Your task to perform on an android device: see sites visited before in the chrome app Image 0: 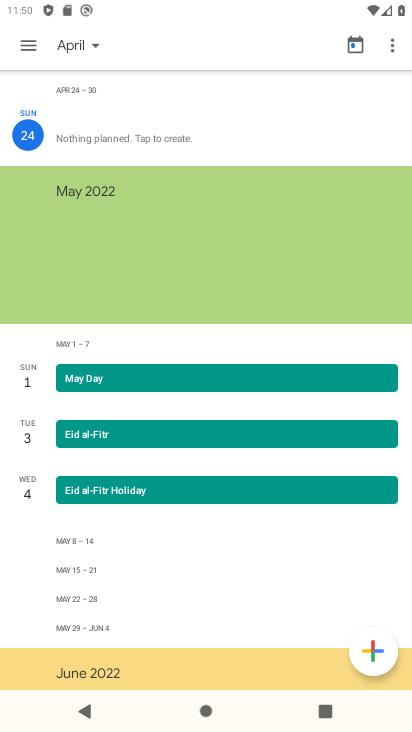
Step 0: press home button
Your task to perform on an android device: see sites visited before in the chrome app Image 1: 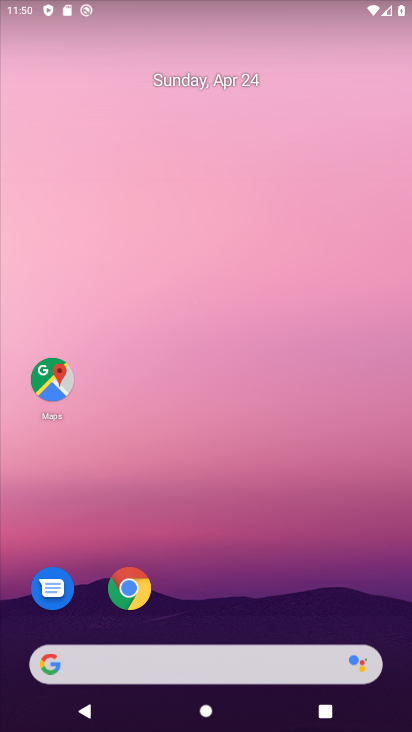
Step 1: click (133, 604)
Your task to perform on an android device: see sites visited before in the chrome app Image 2: 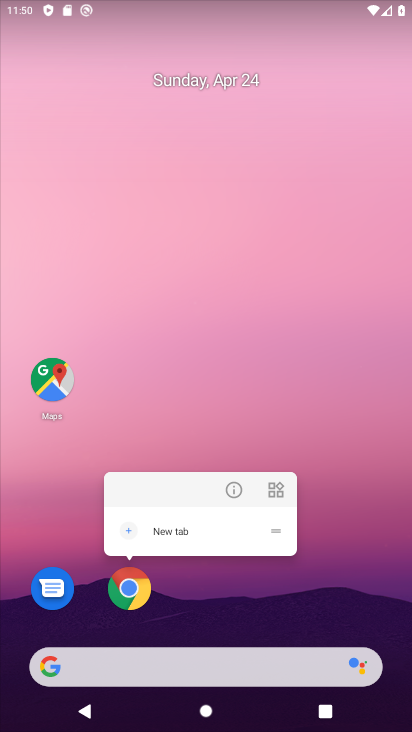
Step 2: click (138, 598)
Your task to perform on an android device: see sites visited before in the chrome app Image 3: 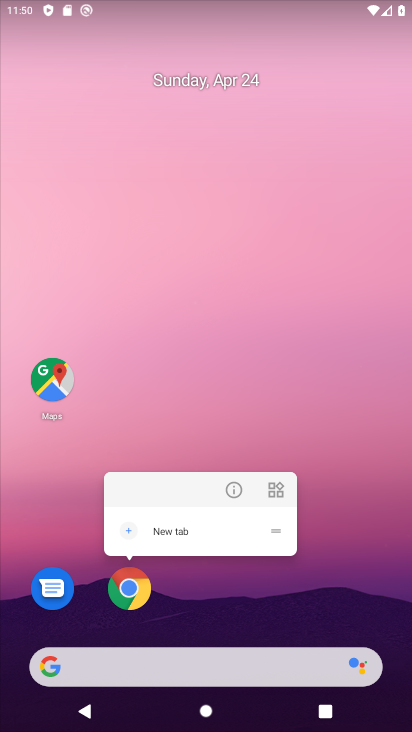
Step 3: click (137, 599)
Your task to perform on an android device: see sites visited before in the chrome app Image 4: 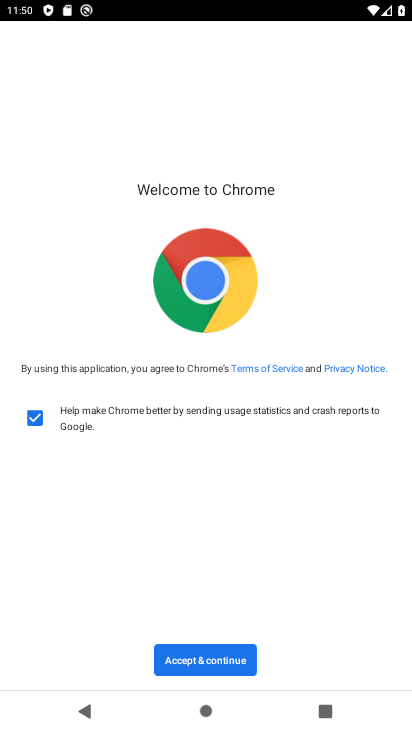
Step 4: click (240, 675)
Your task to perform on an android device: see sites visited before in the chrome app Image 5: 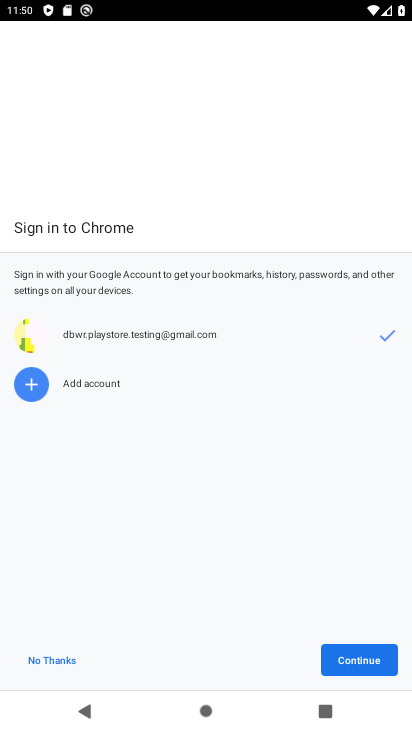
Step 5: click (362, 665)
Your task to perform on an android device: see sites visited before in the chrome app Image 6: 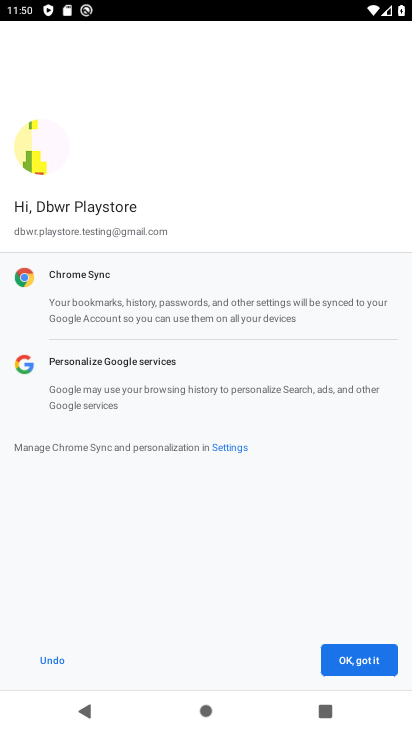
Step 6: click (363, 663)
Your task to perform on an android device: see sites visited before in the chrome app Image 7: 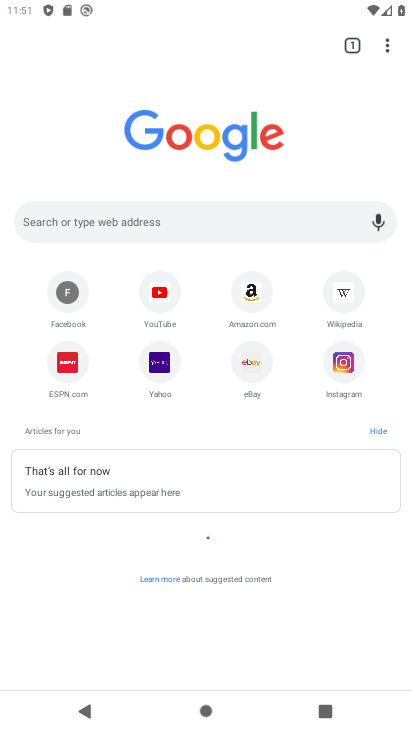
Step 7: task complete